Your task to perform on an android device: Go to settings Image 0: 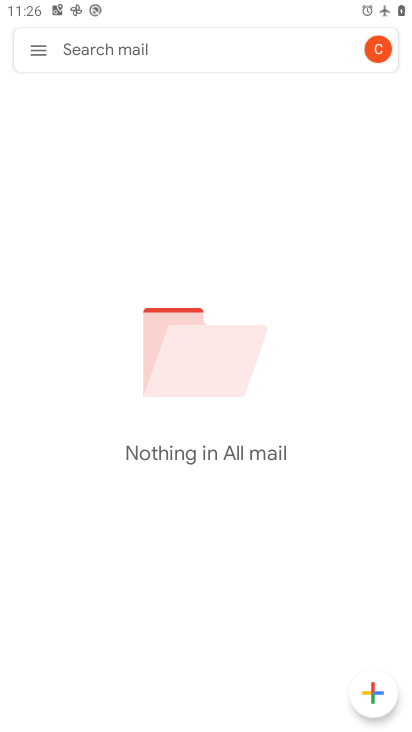
Step 0: press home button
Your task to perform on an android device: Go to settings Image 1: 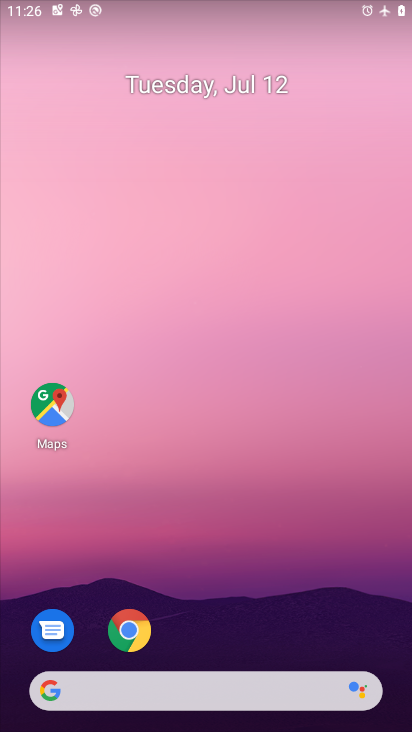
Step 1: drag from (227, 618) to (242, 60)
Your task to perform on an android device: Go to settings Image 2: 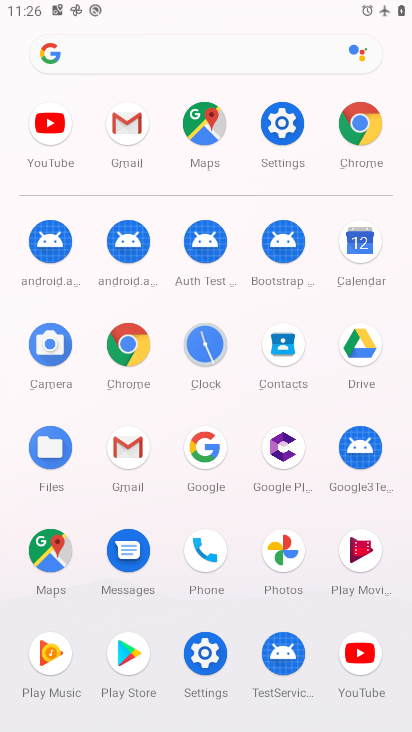
Step 2: click (280, 127)
Your task to perform on an android device: Go to settings Image 3: 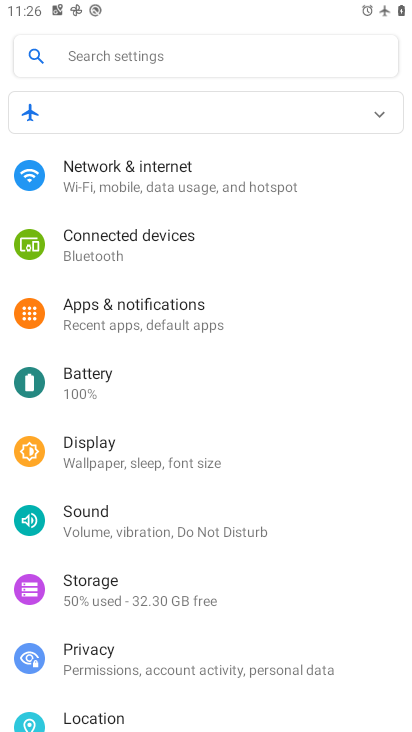
Step 3: task complete